Your task to perform on an android device: toggle improve location accuracy Image 0: 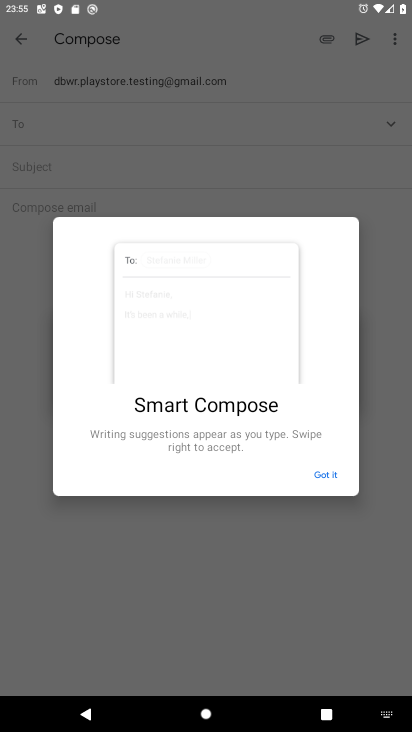
Step 0: press home button
Your task to perform on an android device: toggle improve location accuracy Image 1: 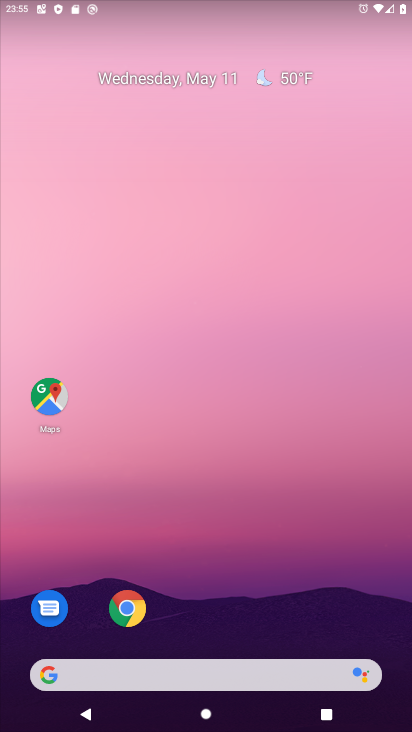
Step 1: drag from (240, 566) to (204, 79)
Your task to perform on an android device: toggle improve location accuracy Image 2: 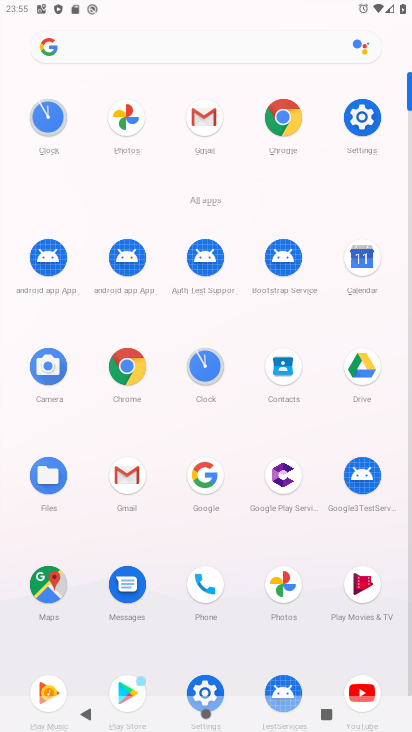
Step 2: click (359, 113)
Your task to perform on an android device: toggle improve location accuracy Image 3: 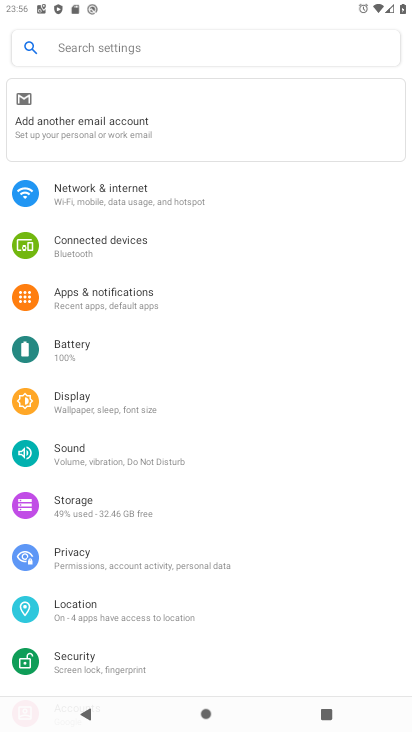
Step 3: click (86, 607)
Your task to perform on an android device: toggle improve location accuracy Image 4: 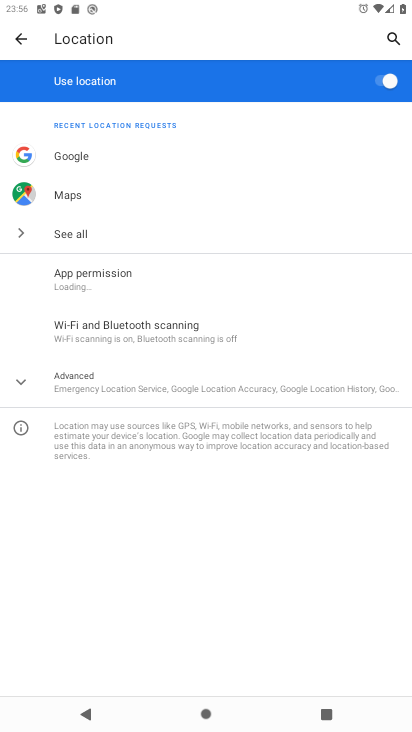
Step 4: click (132, 388)
Your task to perform on an android device: toggle improve location accuracy Image 5: 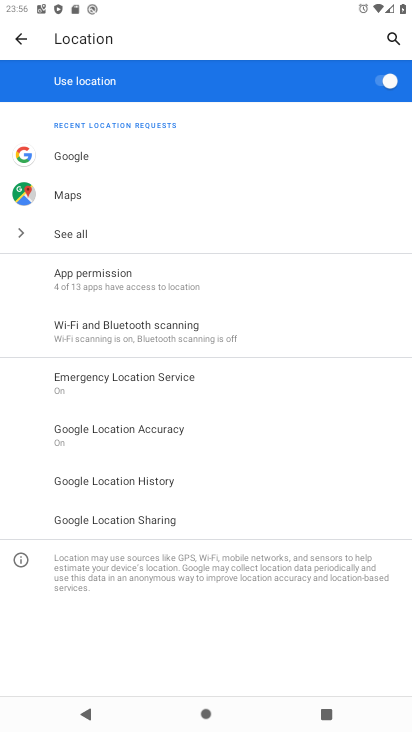
Step 5: click (122, 434)
Your task to perform on an android device: toggle improve location accuracy Image 6: 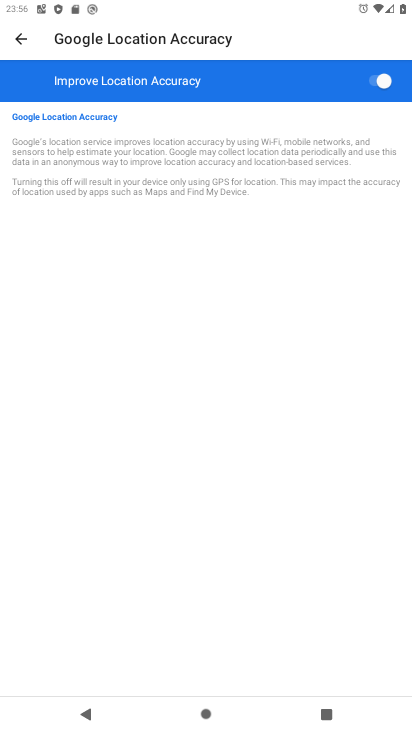
Step 6: click (380, 80)
Your task to perform on an android device: toggle improve location accuracy Image 7: 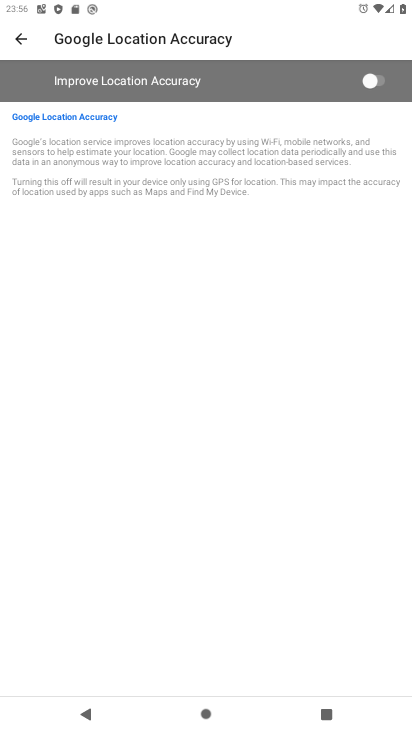
Step 7: task complete